Your task to perform on an android device: See recent photos Image 0: 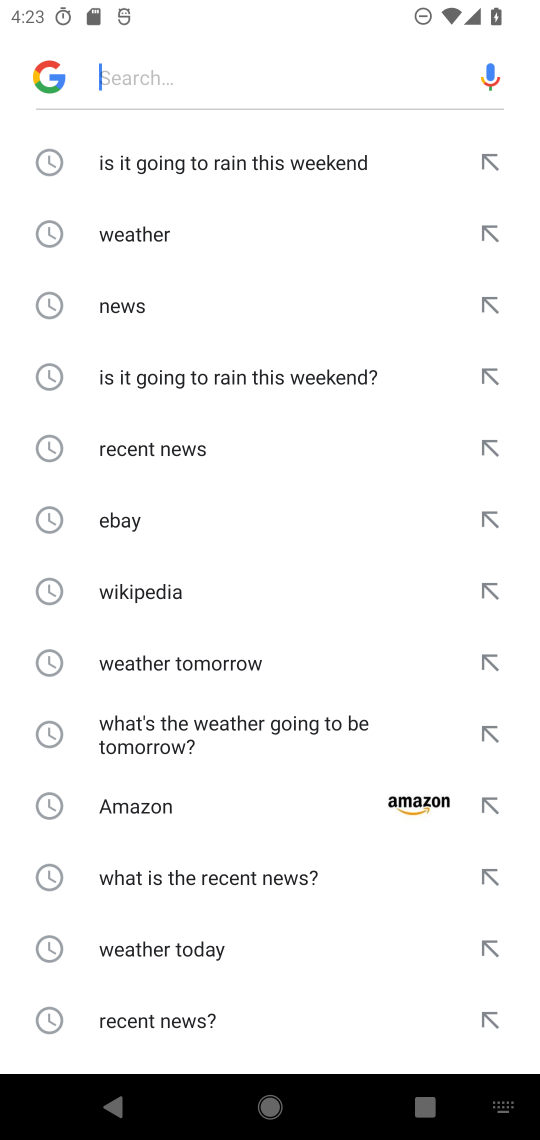
Step 0: press home button
Your task to perform on an android device: See recent photos Image 1: 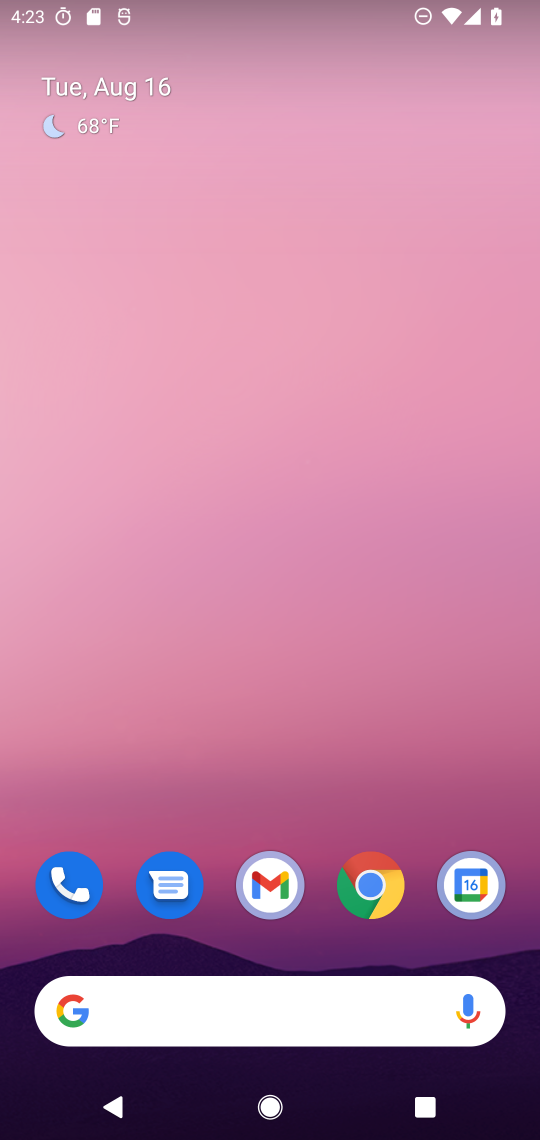
Step 1: drag from (181, 952) to (210, 324)
Your task to perform on an android device: See recent photos Image 2: 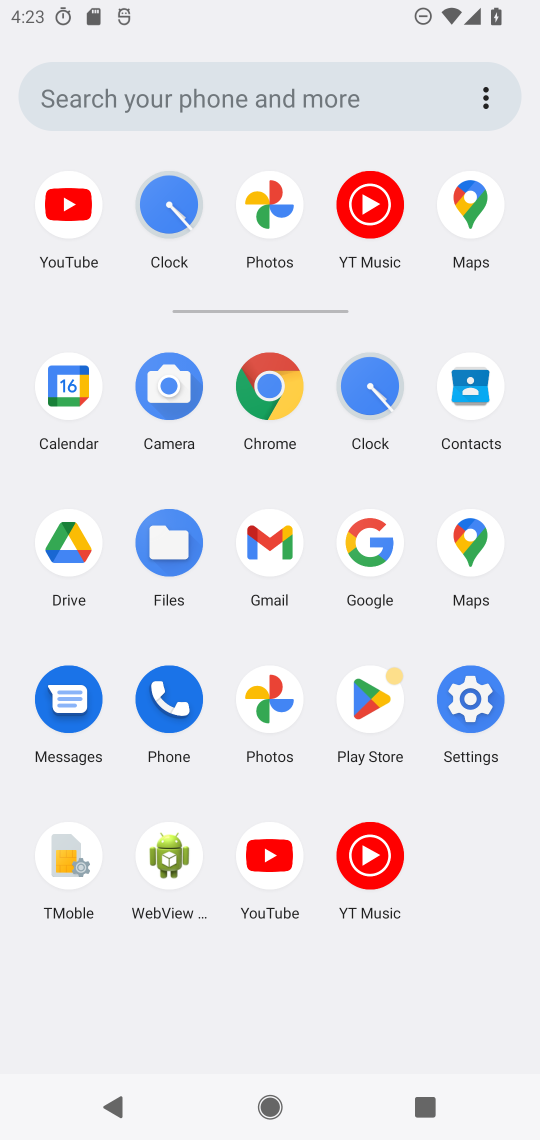
Step 2: click (251, 697)
Your task to perform on an android device: See recent photos Image 3: 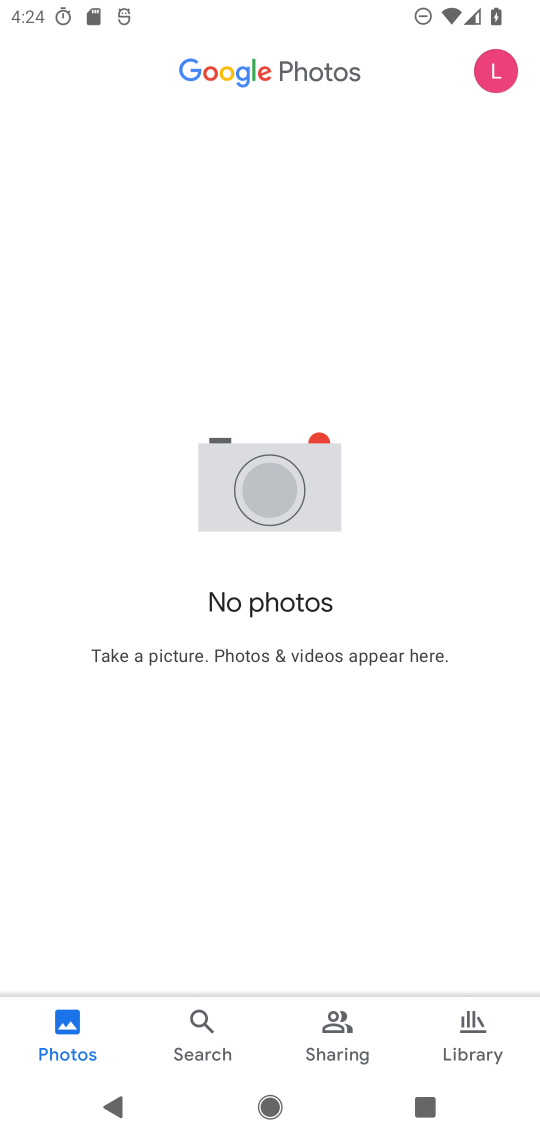
Step 3: task complete